Your task to perform on an android device: turn on javascript in the chrome app Image 0: 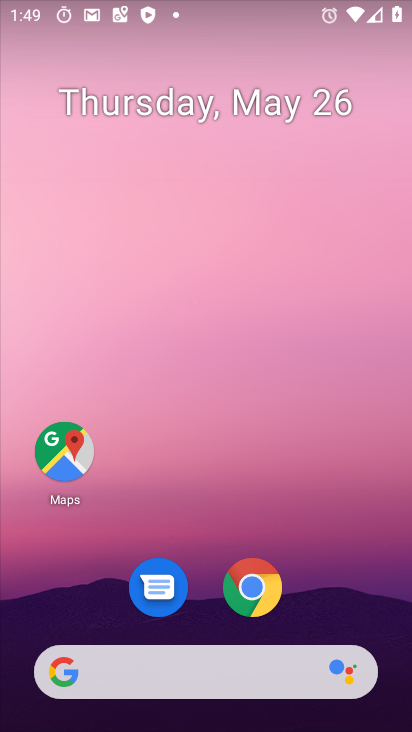
Step 0: drag from (298, 681) to (270, 77)
Your task to perform on an android device: turn on javascript in the chrome app Image 1: 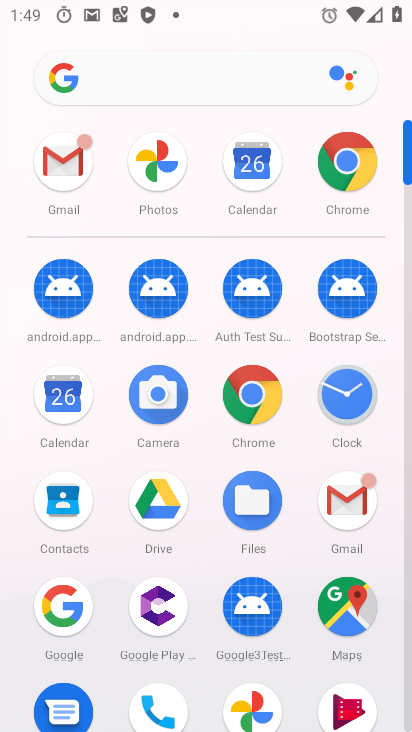
Step 1: click (358, 187)
Your task to perform on an android device: turn on javascript in the chrome app Image 2: 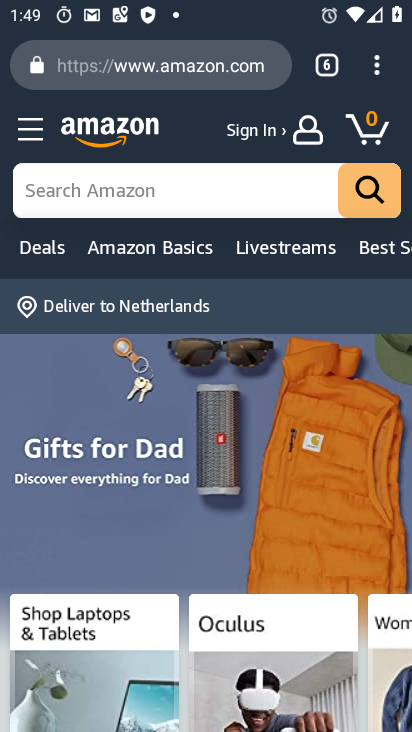
Step 2: click (366, 67)
Your task to perform on an android device: turn on javascript in the chrome app Image 3: 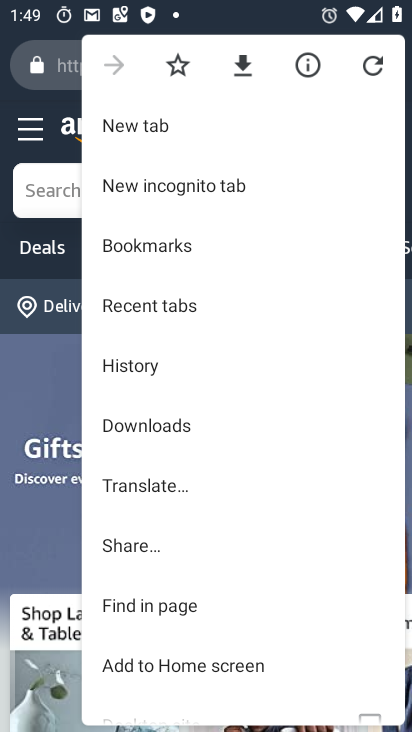
Step 3: drag from (195, 609) to (228, 294)
Your task to perform on an android device: turn on javascript in the chrome app Image 4: 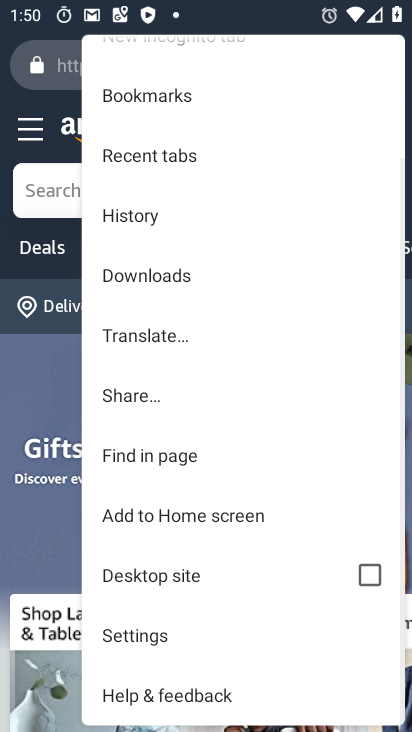
Step 4: click (146, 642)
Your task to perform on an android device: turn on javascript in the chrome app Image 5: 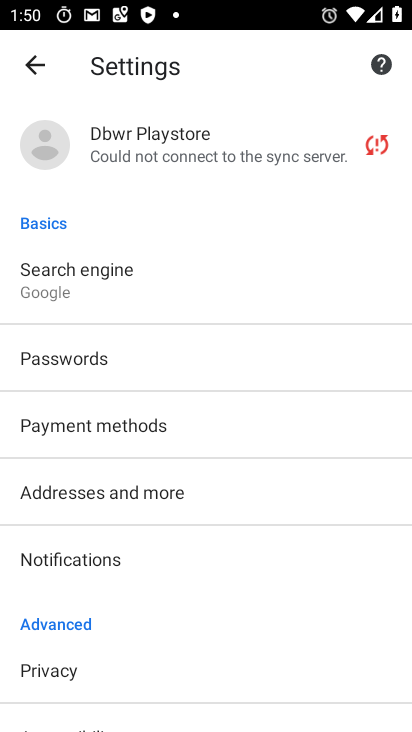
Step 5: drag from (107, 669) to (181, 287)
Your task to perform on an android device: turn on javascript in the chrome app Image 6: 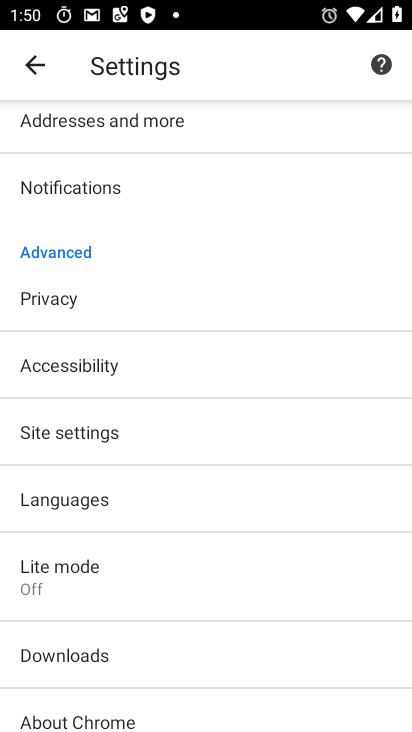
Step 6: click (88, 421)
Your task to perform on an android device: turn on javascript in the chrome app Image 7: 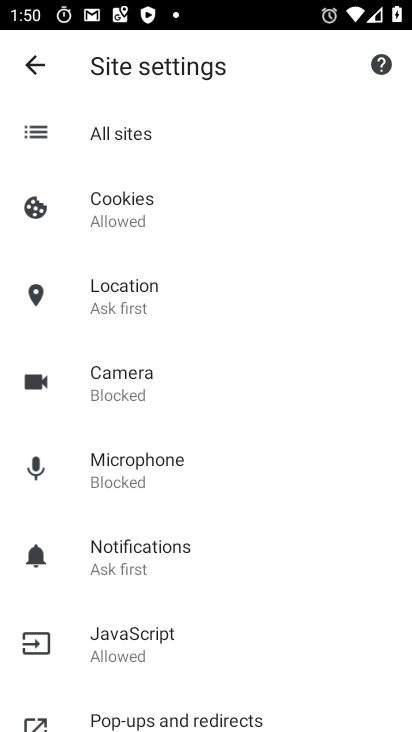
Step 7: click (175, 637)
Your task to perform on an android device: turn on javascript in the chrome app Image 8: 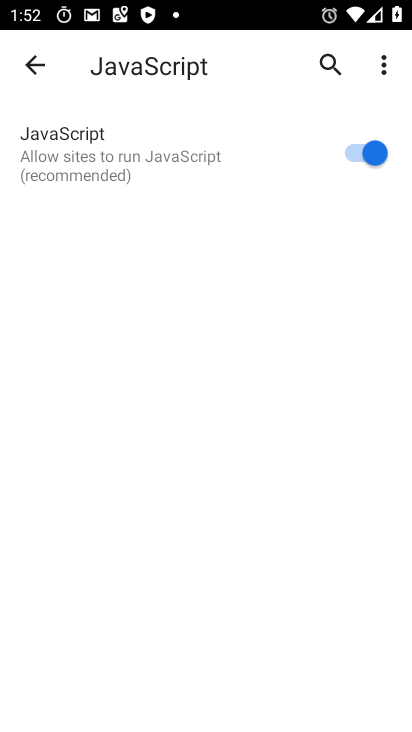
Step 8: task complete